Your task to perform on an android device: toggle notification dots Image 0: 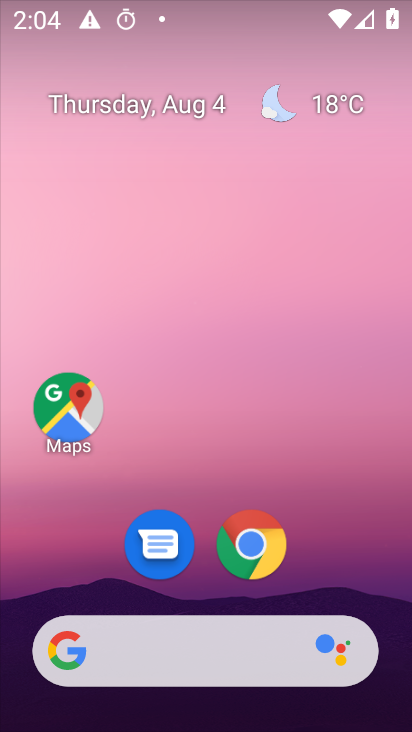
Step 0: click (60, 286)
Your task to perform on an android device: toggle notification dots Image 1: 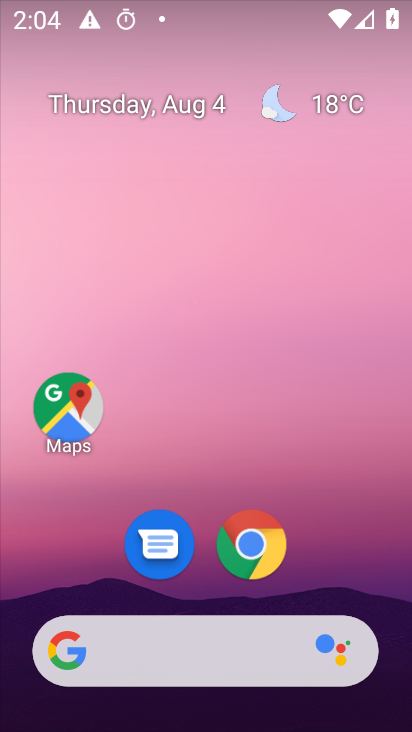
Step 1: drag from (370, 622) to (323, 141)
Your task to perform on an android device: toggle notification dots Image 2: 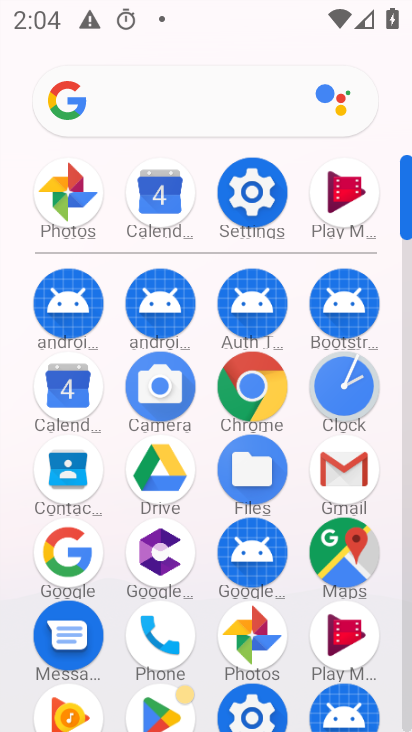
Step 2: click (241, 179)
Your task to perform on an android device: toggle notification dots Image 3: 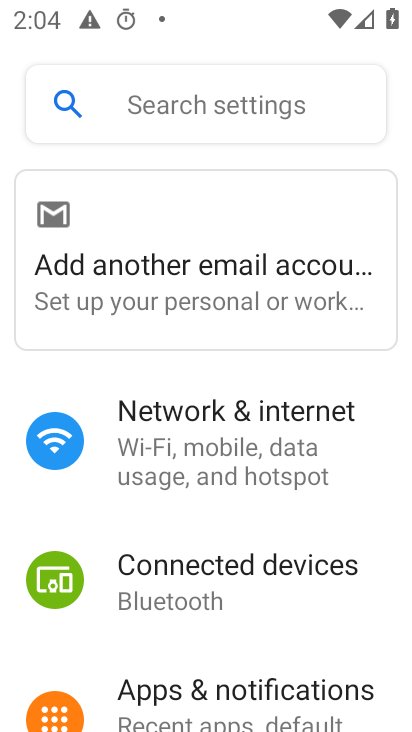
Step 3: click (236, 695)
Your task to perform on an android device: toggle notification dots Image 4: 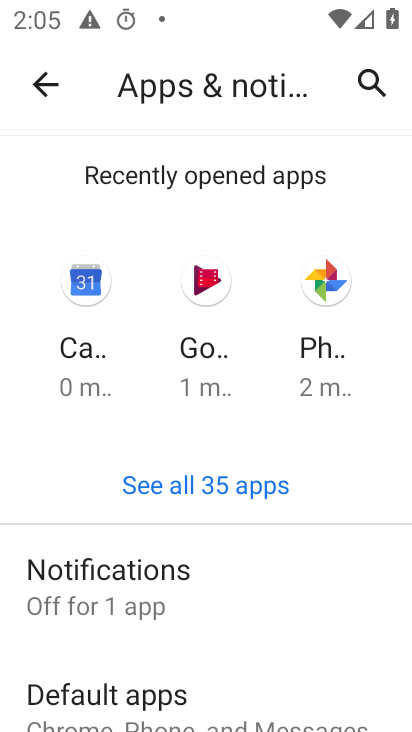
Step 4: drag from (254, 352) to (236, 242)
Your task to perform on an android device: toggle notification dots Image 5: 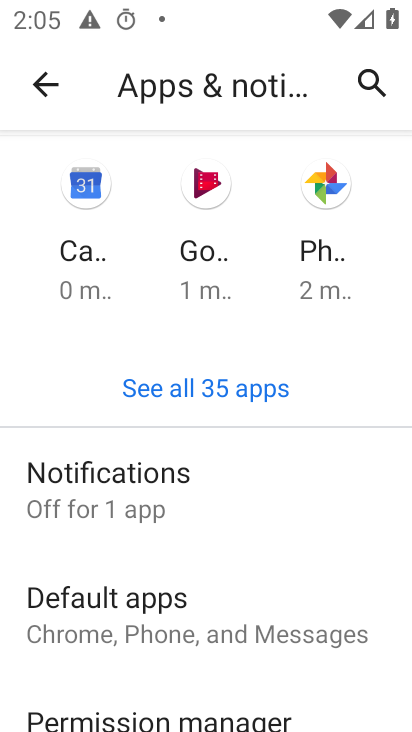
Step 5: drag from (302, 623) to (271, 308)
Your task to perform on an android device: toggle notification dots Image 6: 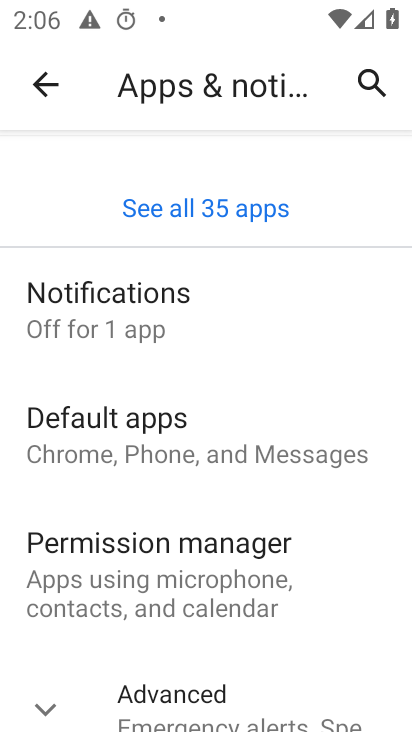
Step 6: click (93, 328)
Your task to perform on an android device: toggle notification dots Image 7: 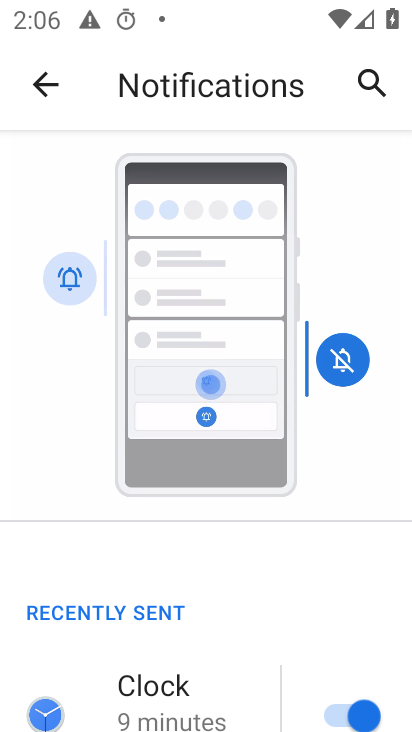
Step 7: drag from (299, 601) to (296, 193)
Your task to perform on an android device: toggle notification dots Image 8: 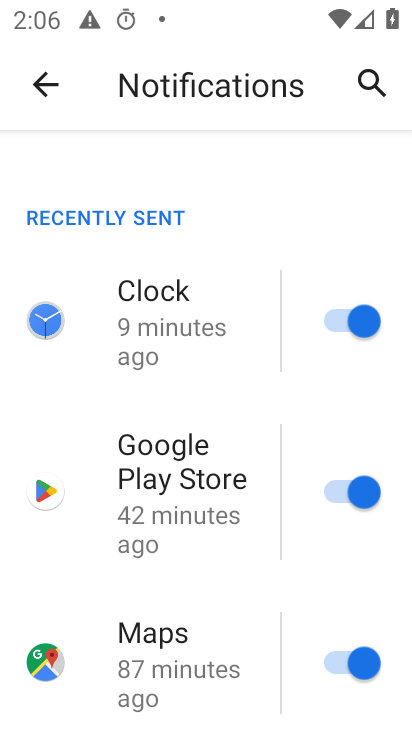
Step 8: drag from (265, 695) to (272, 174)
Your task to perform on an android device: toggle notification dots Image 9: 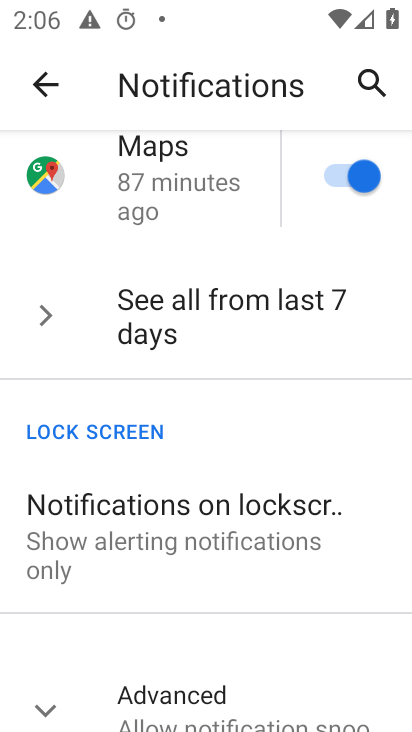
Step 9: drag from (287, 643) to (273, 211)
Your task to perform on an android device: toggle notification dots Image 10: 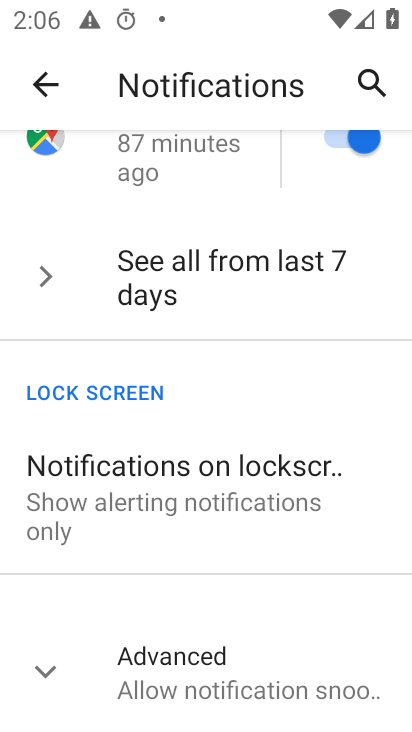
Step 10: click (33, 680)
Your task to perform on an android device: toggle notification dots Image 11: 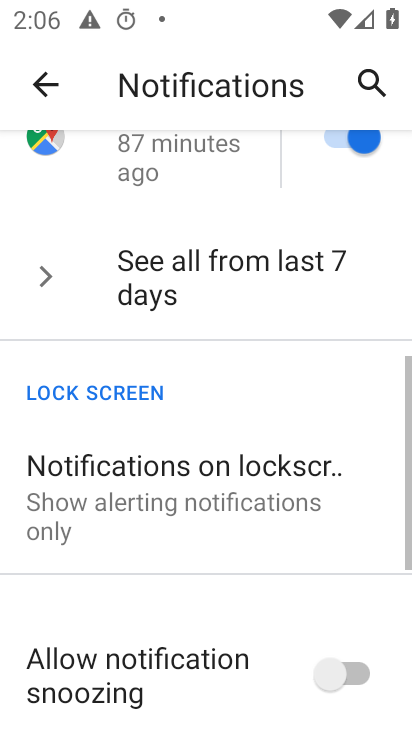
Step 11: task complete